Your task to perform on an android device: Go to Google Image 0: 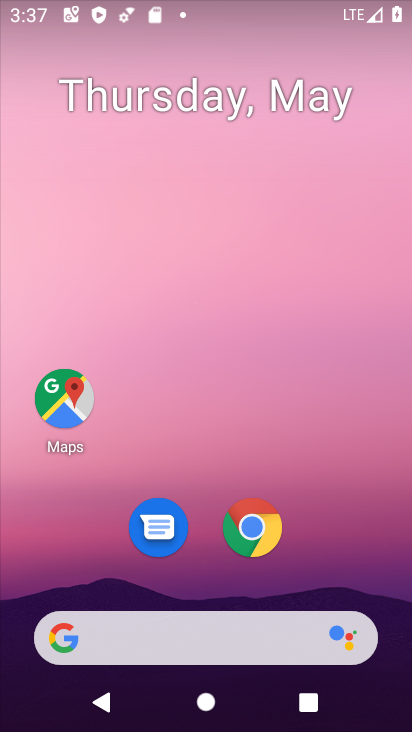
Step 0: click (254, 531)
Your task to perform on an android device: Go to Google Image 1: 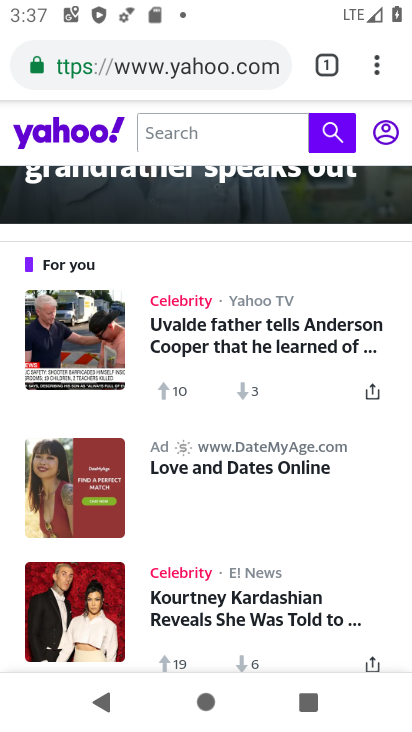
Step 1: task complete